Your task to perform on an android device: turn on priority inbox in the gmail app Image 0: 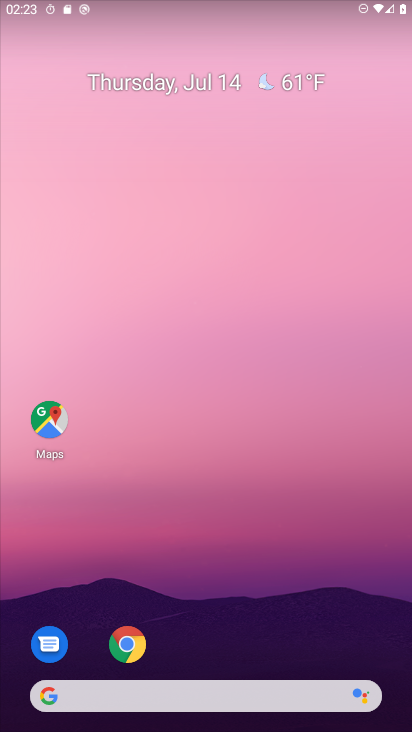
Step 0: drag from (313, 640) to (136, 214)
Your task to perform on an android device: turn on priority inbox in the gmail app Image 1: 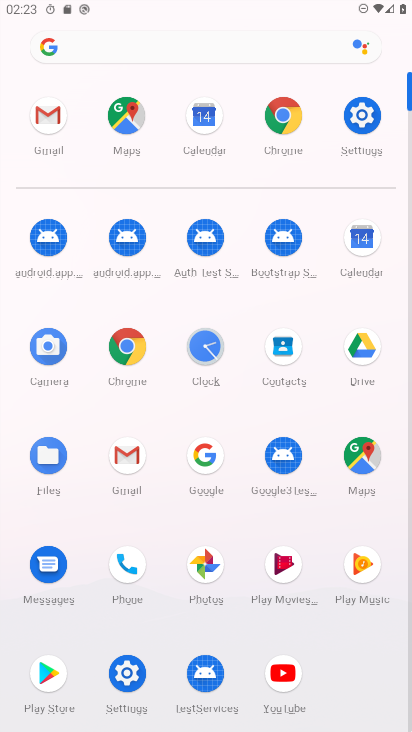
Step 1: click (49, 126)
Your task to perform on an android device: turn on priority inbox in the gmail app Image 2: 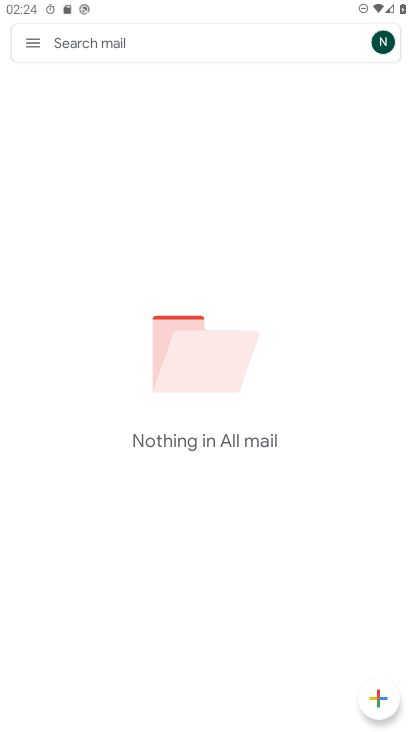
Step 2: click (24, 47)
Your task to perform on an android device: turn on priority inbox in the gmail app Image 3: 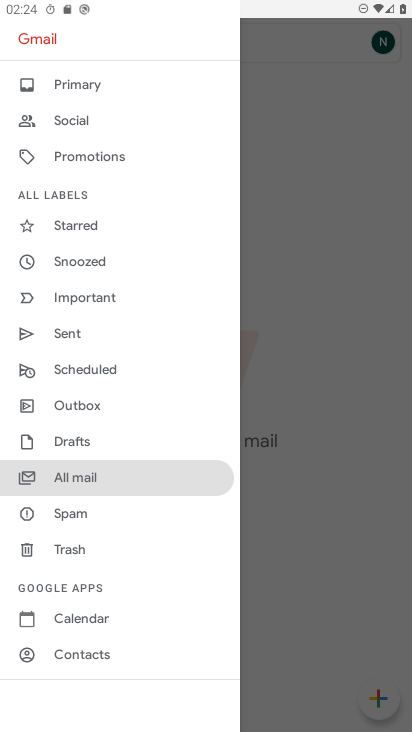
Step 3: drag from (80, 588) to (155, 193)
Your task to perform on an android device: turn on priority inbox in the gmail app Image 4: 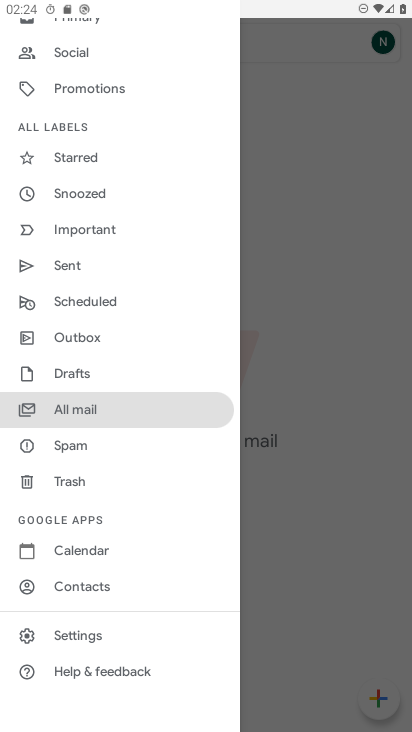
Step 4: click (69, 642)
Your task to perform on an android device: turn on priority inbox in the gmail app Image 5: 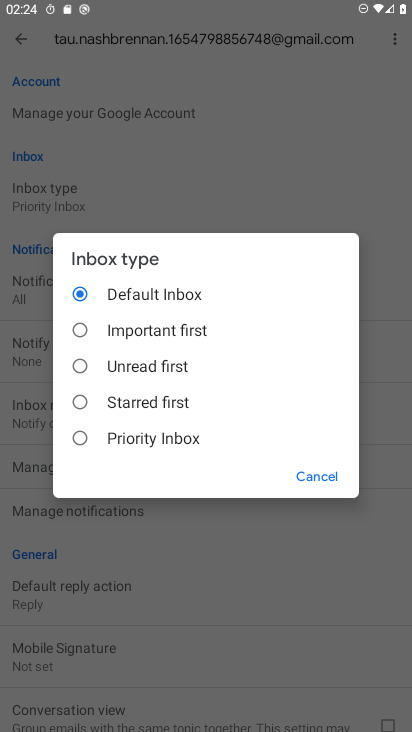
Step 5: task complete